Your task to perform on an android device: Search for seafood restaurants on Google Maps Image 0: 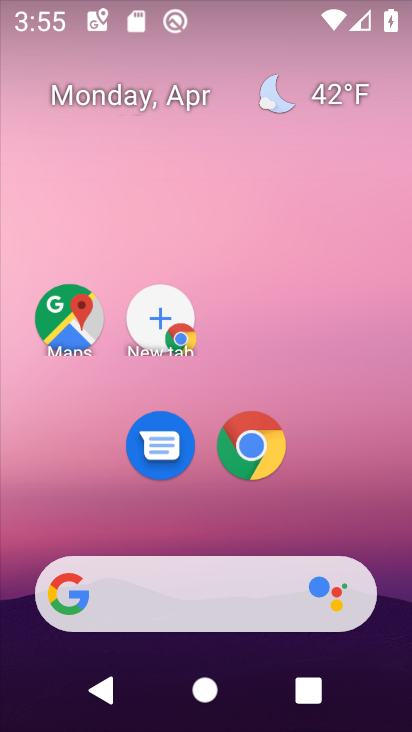
Step 0: click (66, 314)
Your task to perform on an android device: Search for seafood restaurants on Google Maps Image 1: 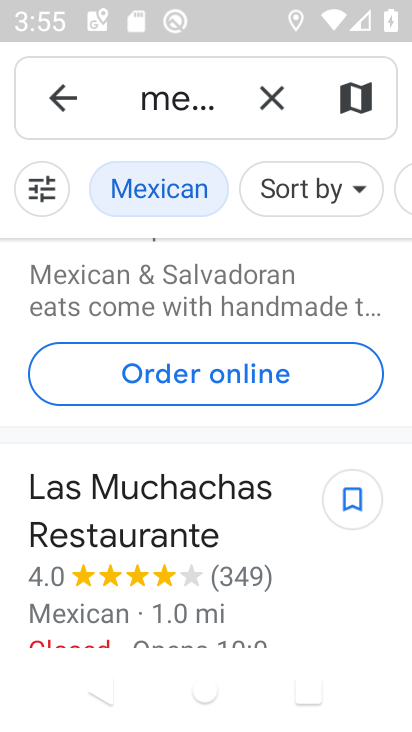
Step 1: click (258, 103)
Your task to perform on an android device: Search for seafood restaurants on Google Maps Image 2: 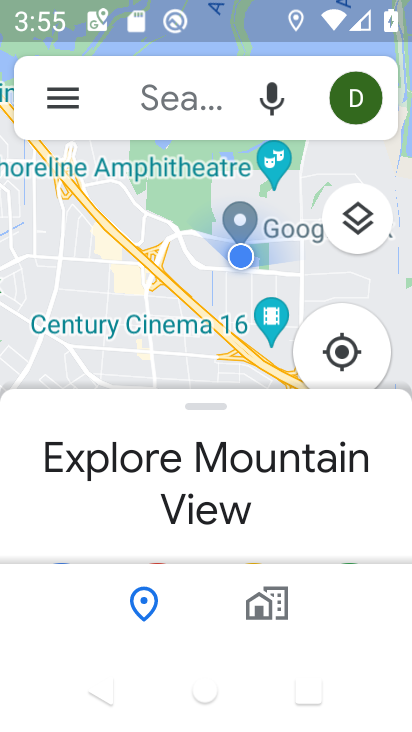
Step 2: click (193, 100)
Your task to perform on an android device: Search for seafood restaurants on Google Maps Image 3: 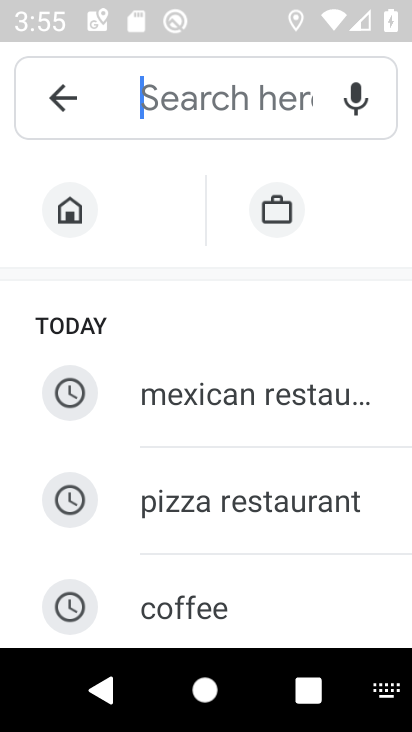
Step 3: drag from (238, 570) to (265, 143)
Your task to perform on an android device: Search for seafood restaurants on Google Maps Image 4: 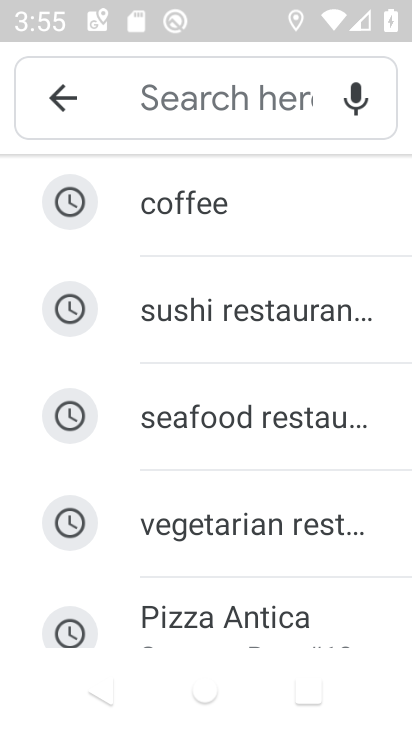
Step 4: click (210, 410)
Your task to perform on an android device: Search for seafood restaurants on Google Maps Image 5: 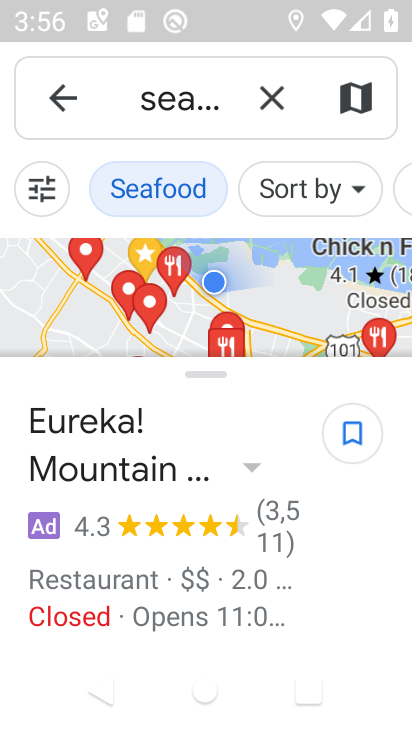
Step 5: task complete